Your task to perform on an android device: toggle airplane mode Image 0: 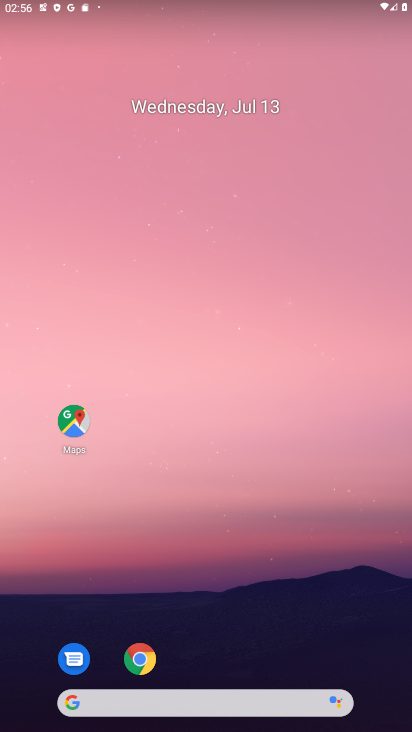
Step 0: press home button
Your task to perform on an android device: toggle airplane mode Image 1: 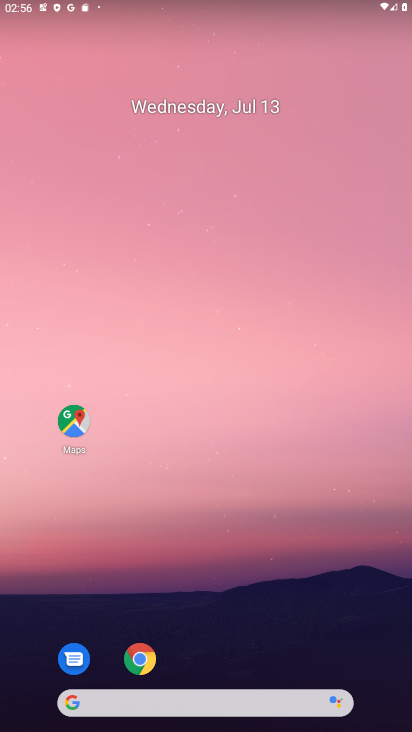
Step 1: drag from (248, 660) to (294, 78)
Your task to perform on an android device: toggle airplane mode Image 2: 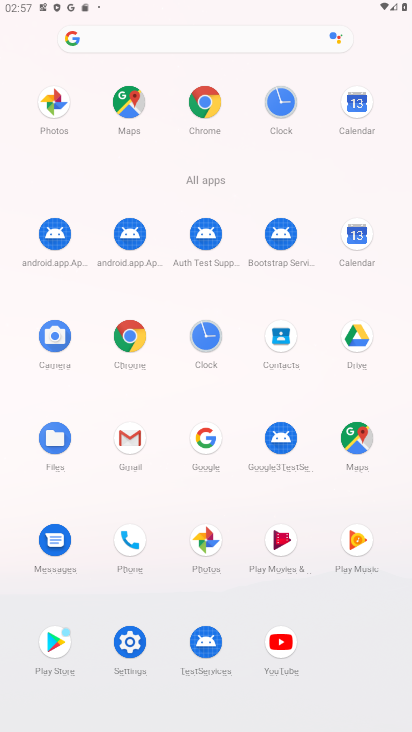
Step 2: click (132, 639)
Your task to perform on an android device: toggle airplane mode Image 3: 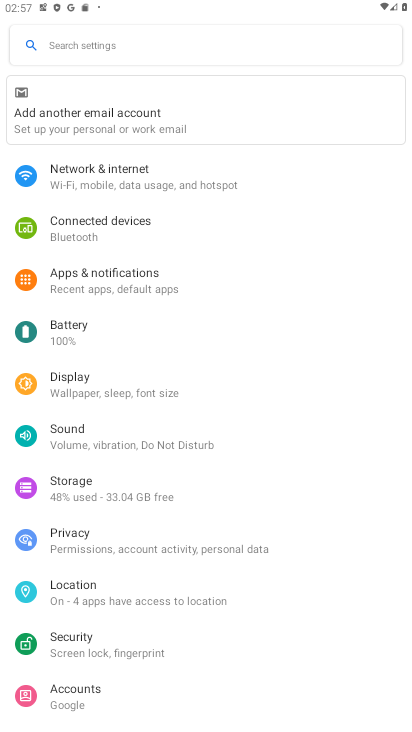
Step 3: click (140, 194)
Your task to perform on an android device: toggle airplane mode Image 4: 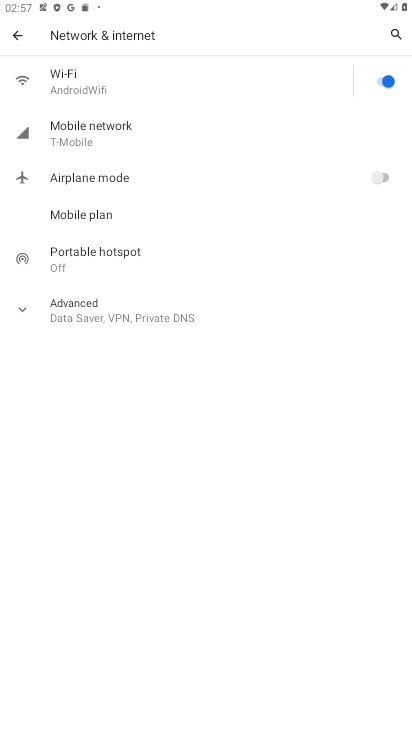
Step 4: click (379, 184)
Your task to perform on an android device: toggle airplane mode Image 5: 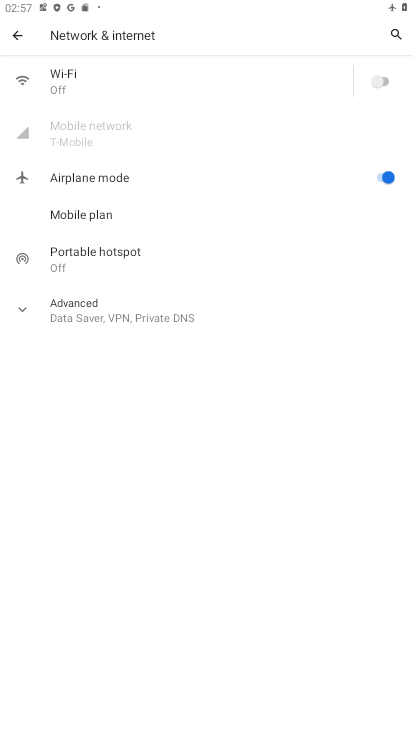
Step 5: task complete